Your task to perform on an android device: delete browsing data in the chrome app Image 0: 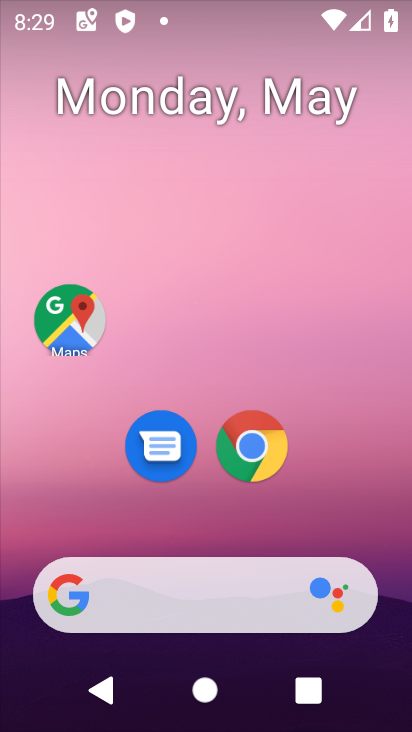
Step 0: press home button
Your task to perform on an android device: delete browsing data in the chrome app Image 1: 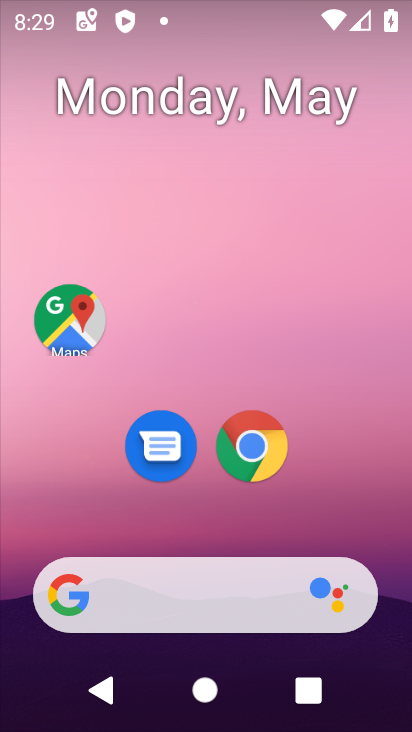
Step 1: click (247, 440)
Your task to perform on an android device: delete browsing data in the chrome app Image 2: 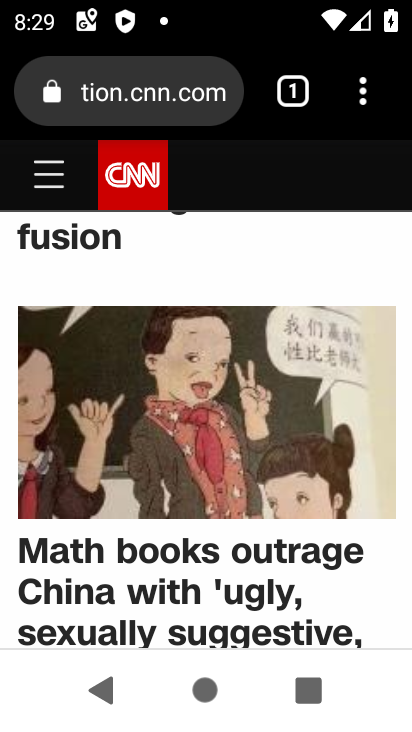
Step 2: click (357, 86)
Your task to perform on an android device: delete browsing data in the chrome app Image 3: 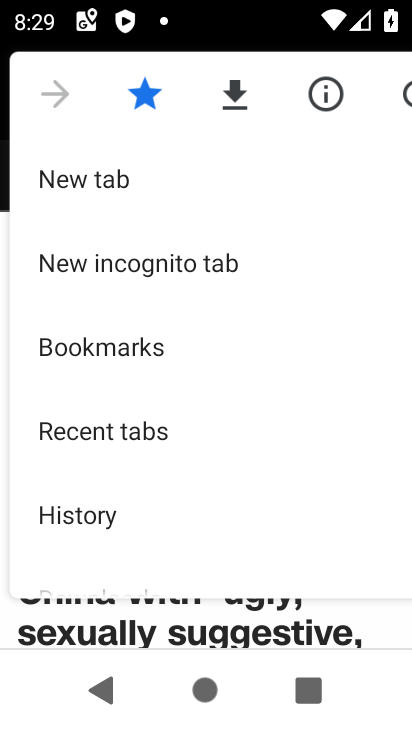
Step 3: click (131, 510)
Your task to perform on an android device: delete browsing data in the chrome app Image 4: 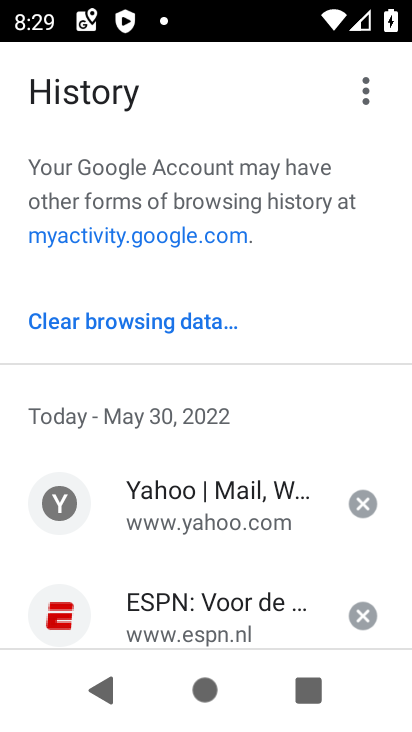
Step 4: click (135, 318)
Your task to perform on an android device: delete browsing data in the chrome app Image 5: 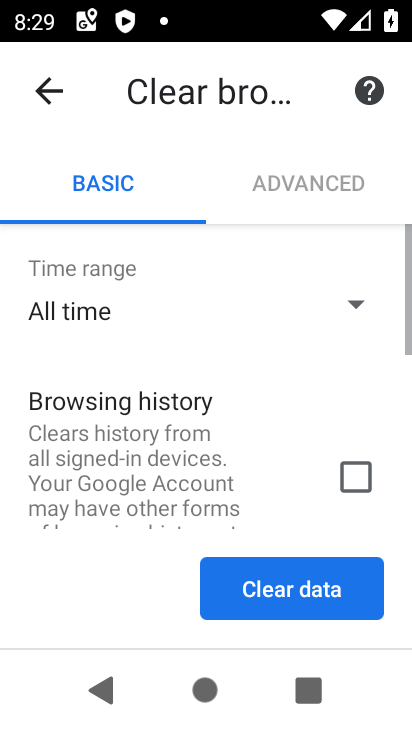
Step 5: click (350, 471)
Your task to perform on an android device: delete browsing data in the chrome app Image 6: 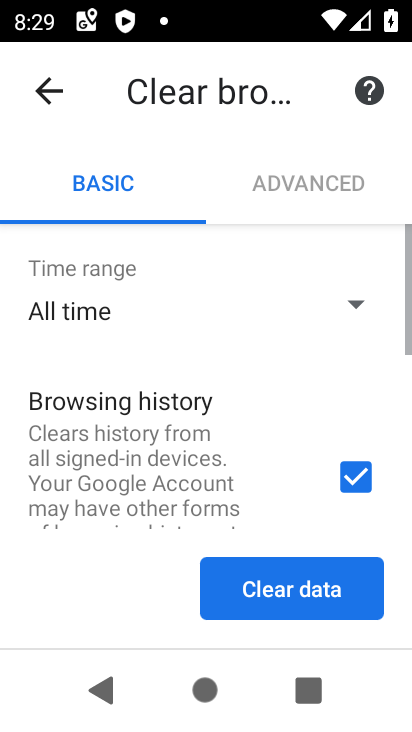
Step 6: drag from (254, 502) to (242, 242)
Your task to perform on an android device: delete browsing data in the chrome app Image 7: 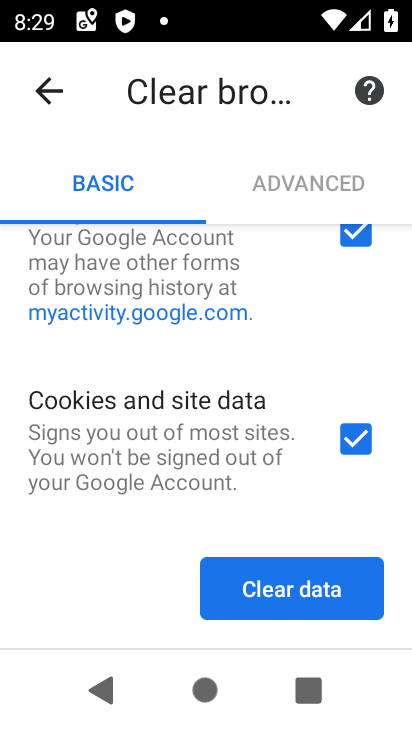
Step 7: drag from (263, 491) to (253, 237)
Your task to perform on an android device: delete browsing data in the chrome app Image 8: 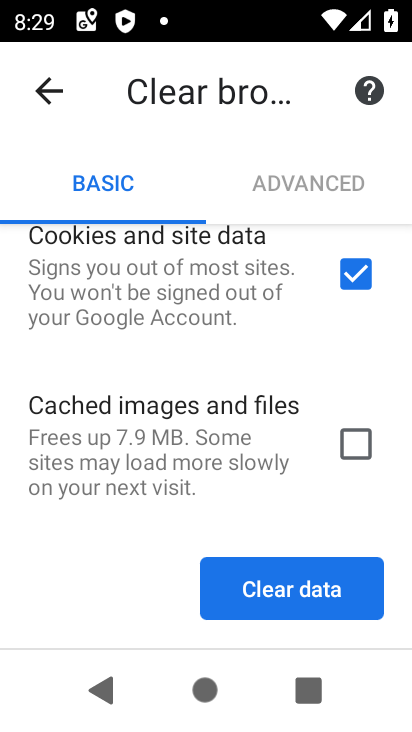
Step 8: click (352, 435)
Your task to perform on an android device: delete browsing data in the chrome app Image 9: 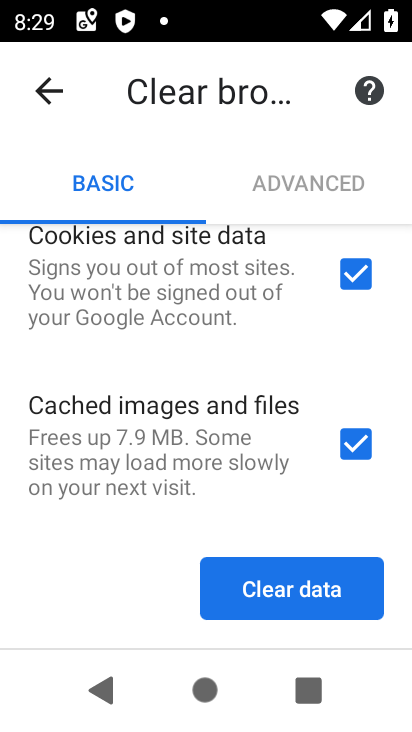
Step 9: click (292, 593)
Your task to perform on an android device: delete browsing data in the chrome app Image 10: 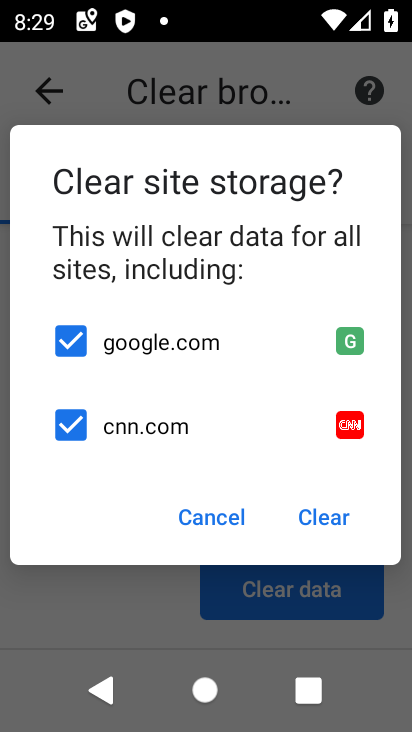
Step 10: click (319, 515)
Your task to perform on an android device: delete browsing data in the chrome app Image 11: 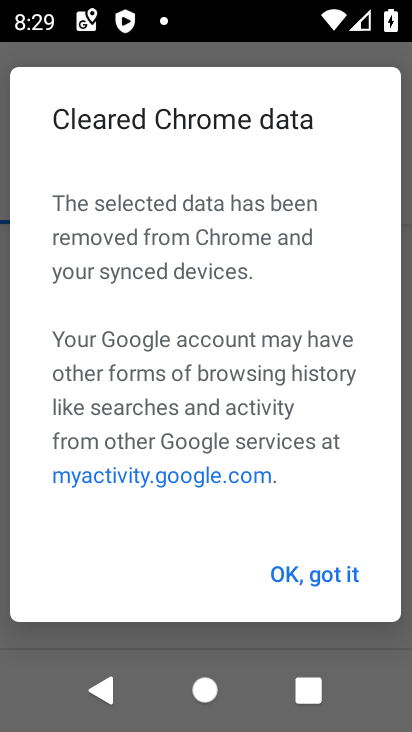
Step 11: click (337, 576)
Your task to perform on an android device: delete browsing data in the chrome app Image 12: 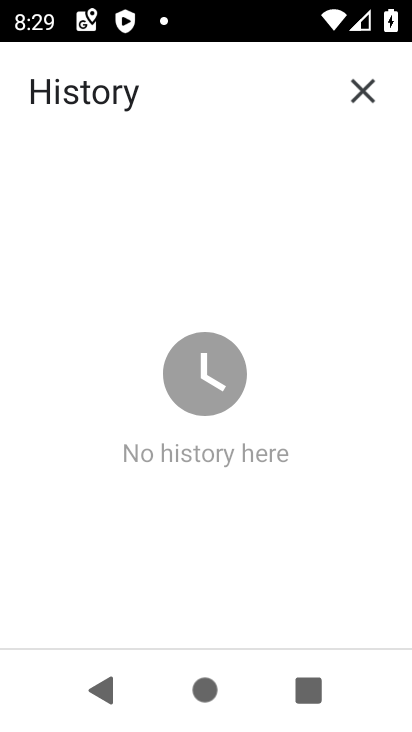
Step 12: task complete